Your task to perform on an android device: check out phone information Image 0: 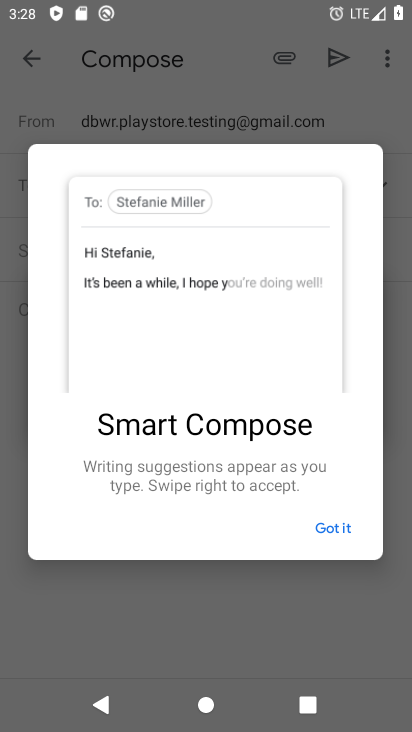
Step 0: press home button
Your task to perform on an android device: check out phone information Image 1: 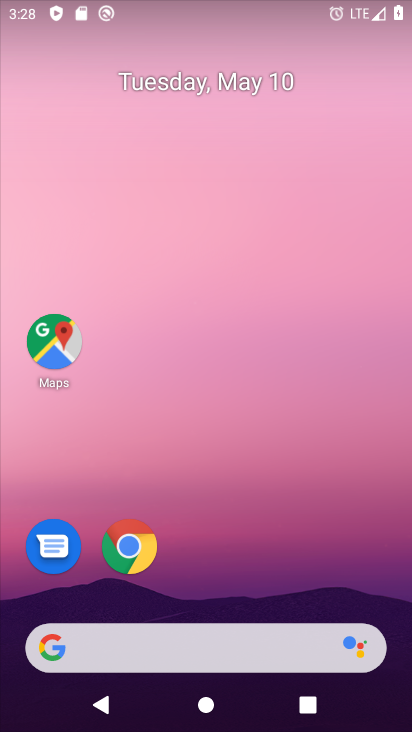
Step 1: drag from (233, 583) to (277, 2)
Your task to perform on an android device: check out phone information Image 2: 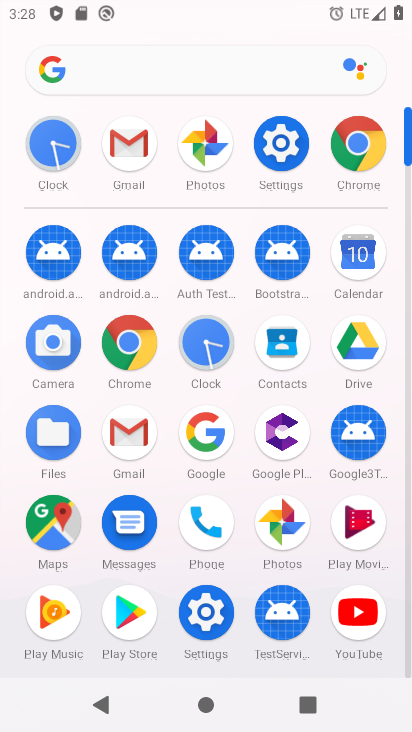
Step 2: click (203, 612)
Your task to perform on an android device: check out phone information Image 3: 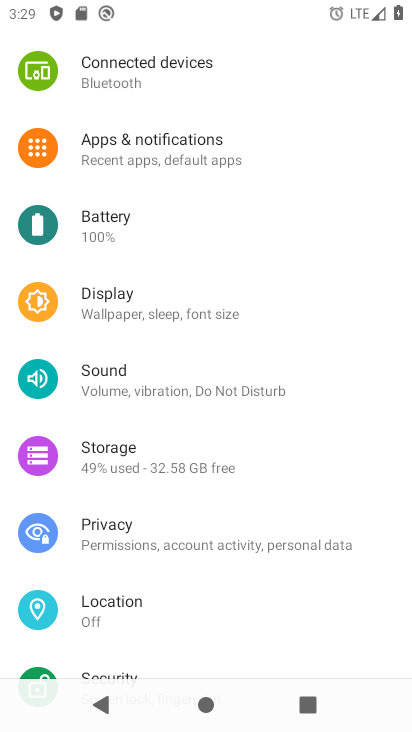
Step 3: drag from (199, 634) to (236, 236)
Your task to perform on an android device: check out phone information Image 4: 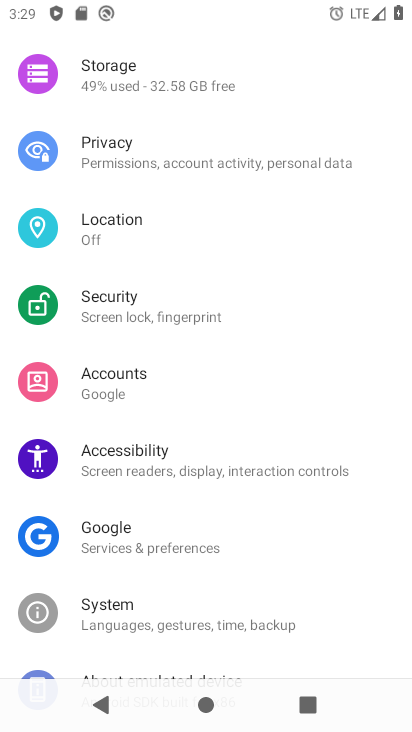
Step 4: drag from (178, 609) to (225, 208)
Your task to perform on an android device: check out phone information Image 5: 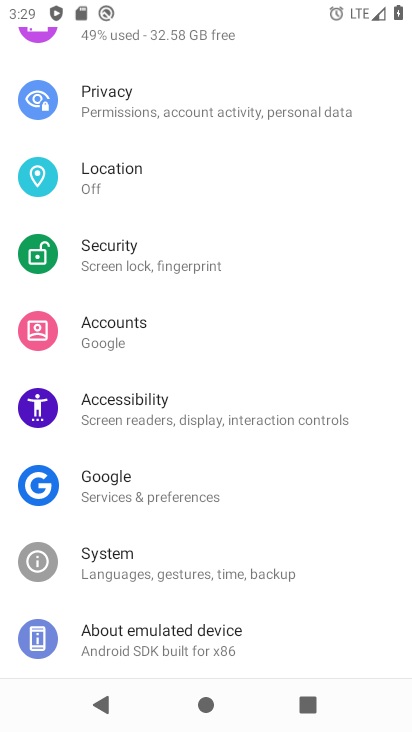
Step 5: click (156, 634)
Your task to perform on an android device: check out phone information Image 6: 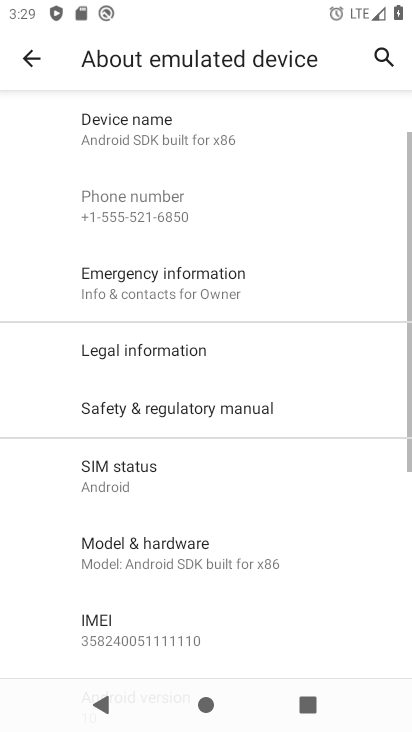
Step 6: task complete